Your task to perform on an android device: Open CNN.com Image 0: 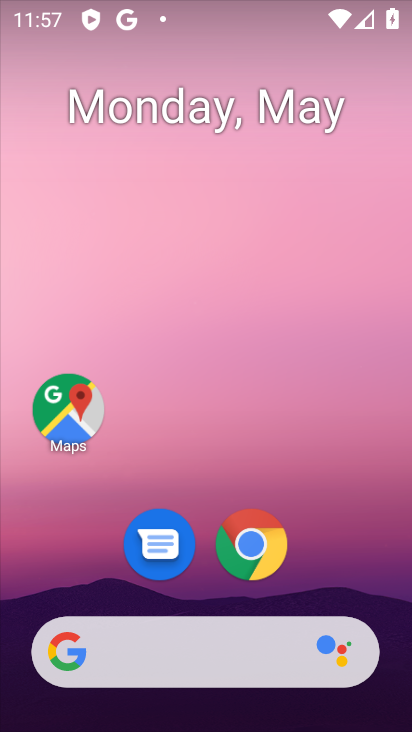
Step 0: click (251, 557)
Your task to perform on an android device: Open CNN.com Image 1: 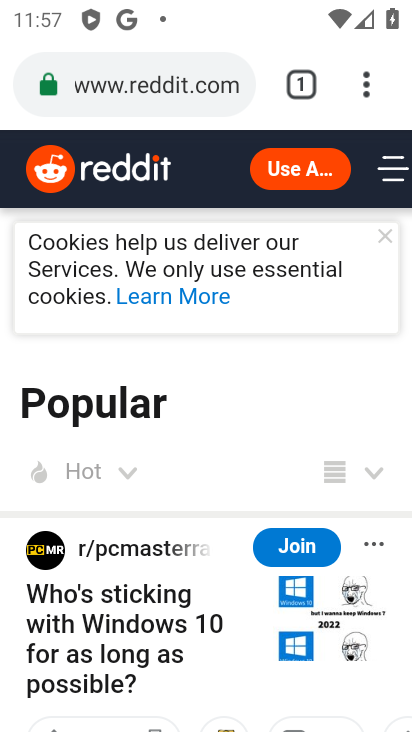
Step 1: click (301, 75)
Your task to perform on an android device: Open CNN.com Image 2: 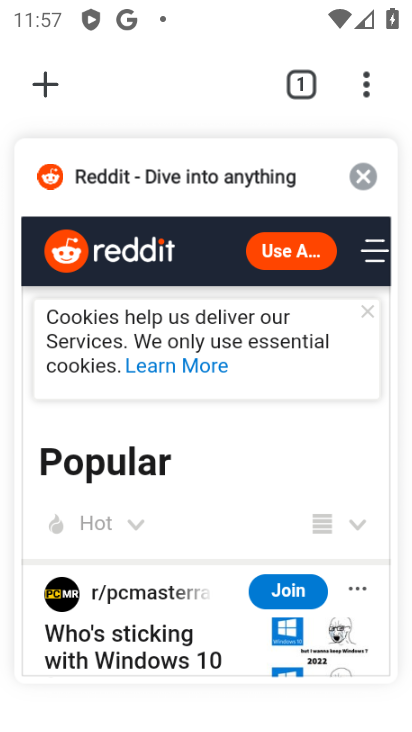
Step 2: click (43, 75)
Your task to perform on an android device: Open CNN.com Image 3: 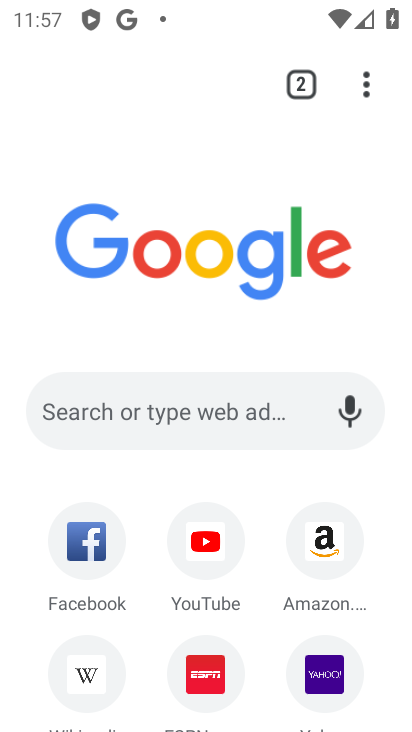
Step 3: click (141, 409)
Your task to perform on an android device: Open CNN.com Image 4: 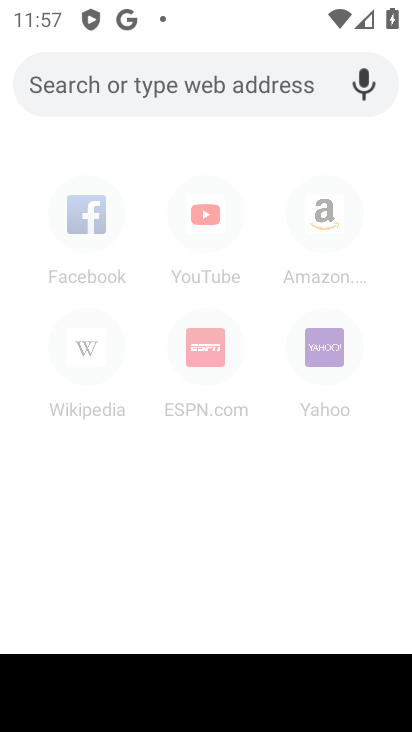
Step 4: type "CNN.com"
Your task to perform on an android device: Open CNN.com Image 5: 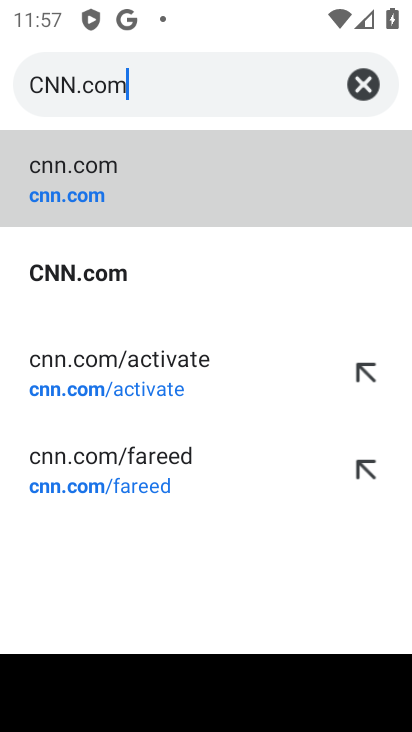
Step 5: click (134, 180)
Your task to perform on an android device: Open CNN.com Image 6: 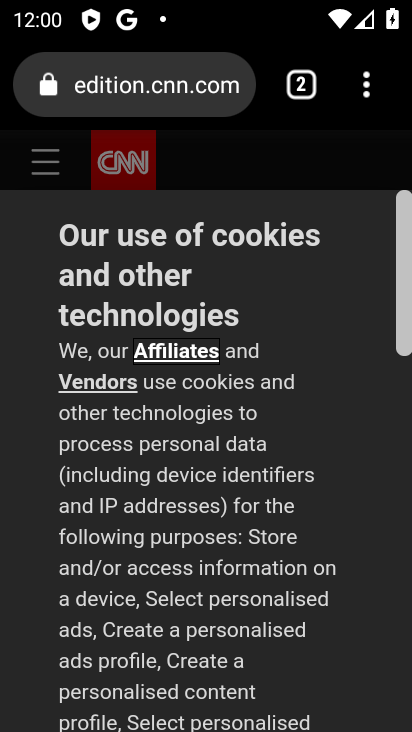
Step 6: task complete